Your task to perform on an android device: empty trash in the gmail app Image 0: 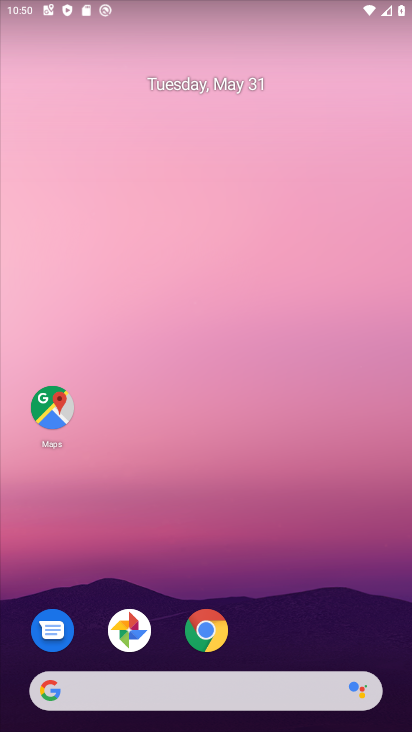
Step 0: drag from (297, 633) to (309, 239)
Your task to perform on an android device: empty trash in the gmail app Image 1: 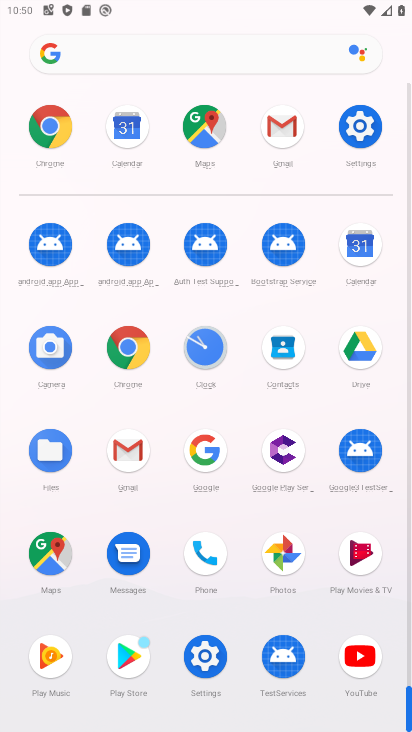
Step 1: click (102, 445)
Your task to perform on an android device: empty trash in the gmail app Image 2: 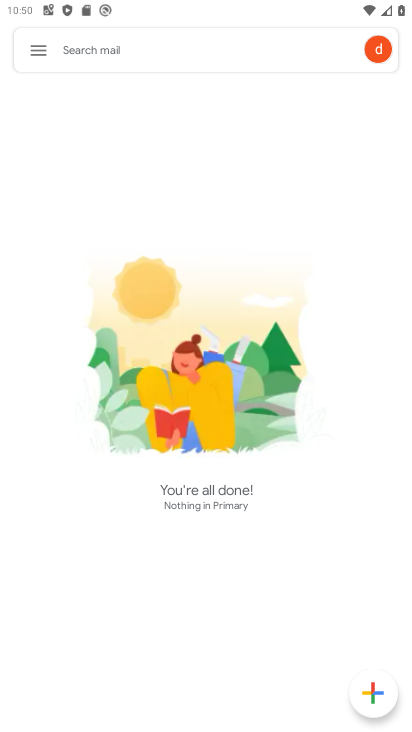
Step 2: click (34, 42)
Your task to perform on an android device: empty trash in the gmail app Image 3: 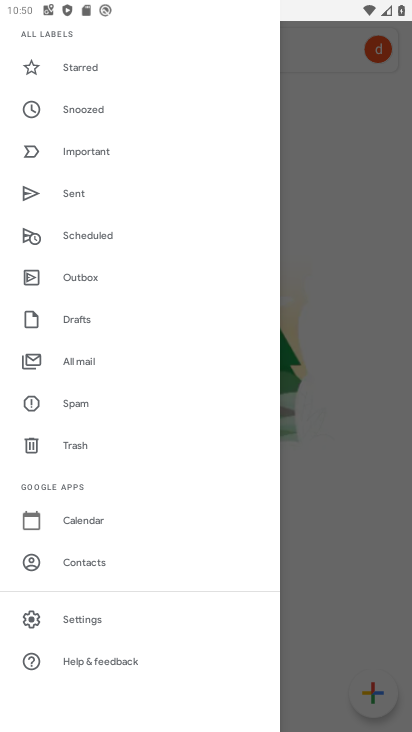
Step 3: click (77, 445)
Your task to perform on an android device: empty trash in the gmail app Image 4: 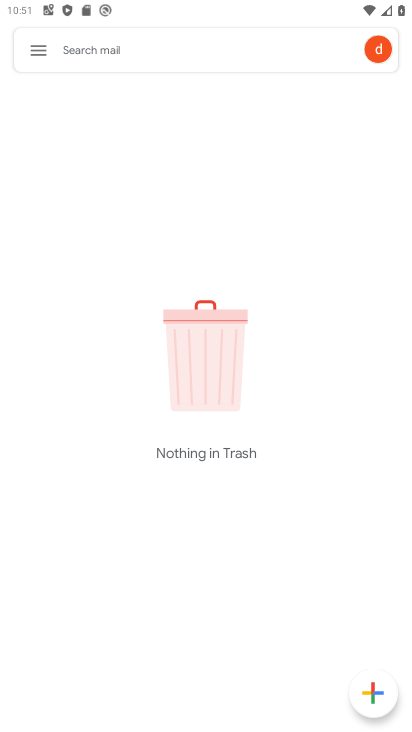
Step 4: task complete